Your task to perform on an android device: Empty the shopping cart on amazon.com. Add macbook pro to the cart on amazon.com, then select checkout. Image 0: 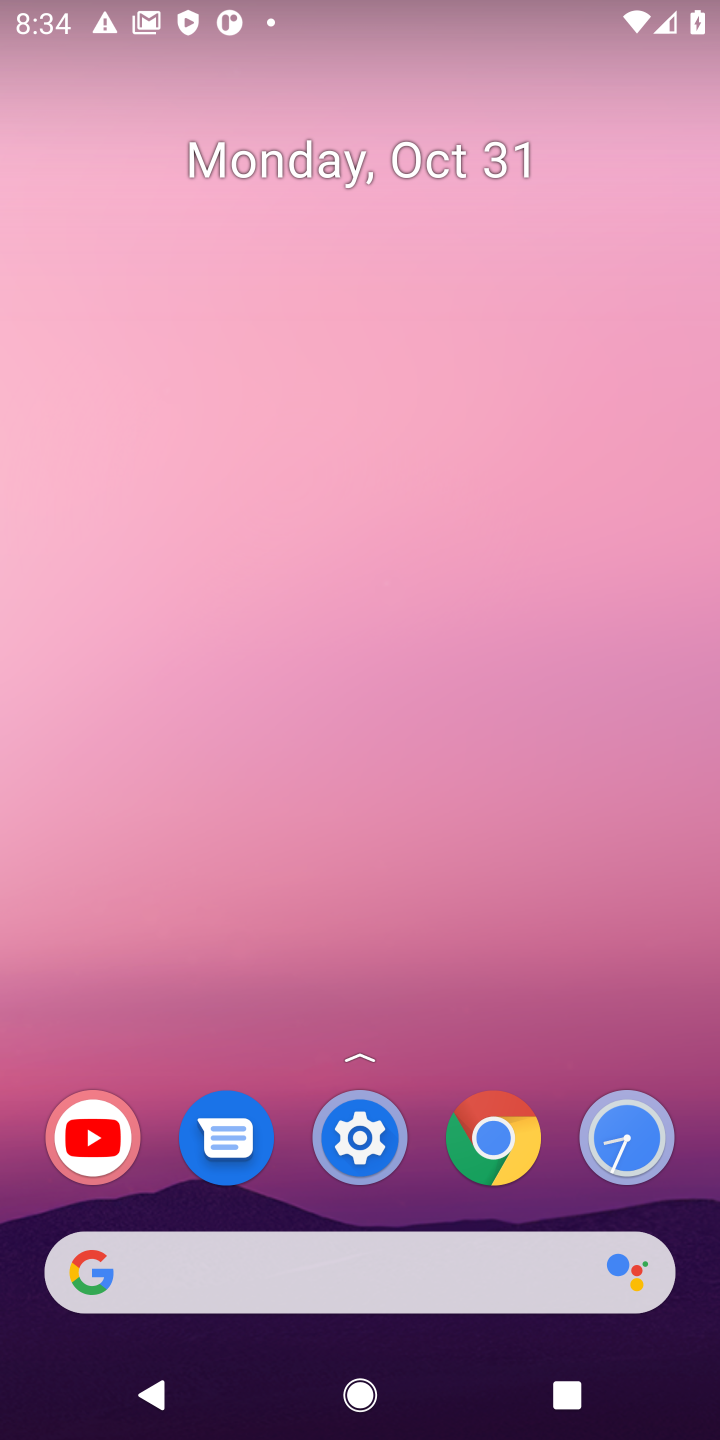
Step 0: click (413, 1302)
Your task to perform on an android device: Empty the shopping cart on amazon.com. Add macbook pro to the cart on amazon.com, then select checkout. Image 1: 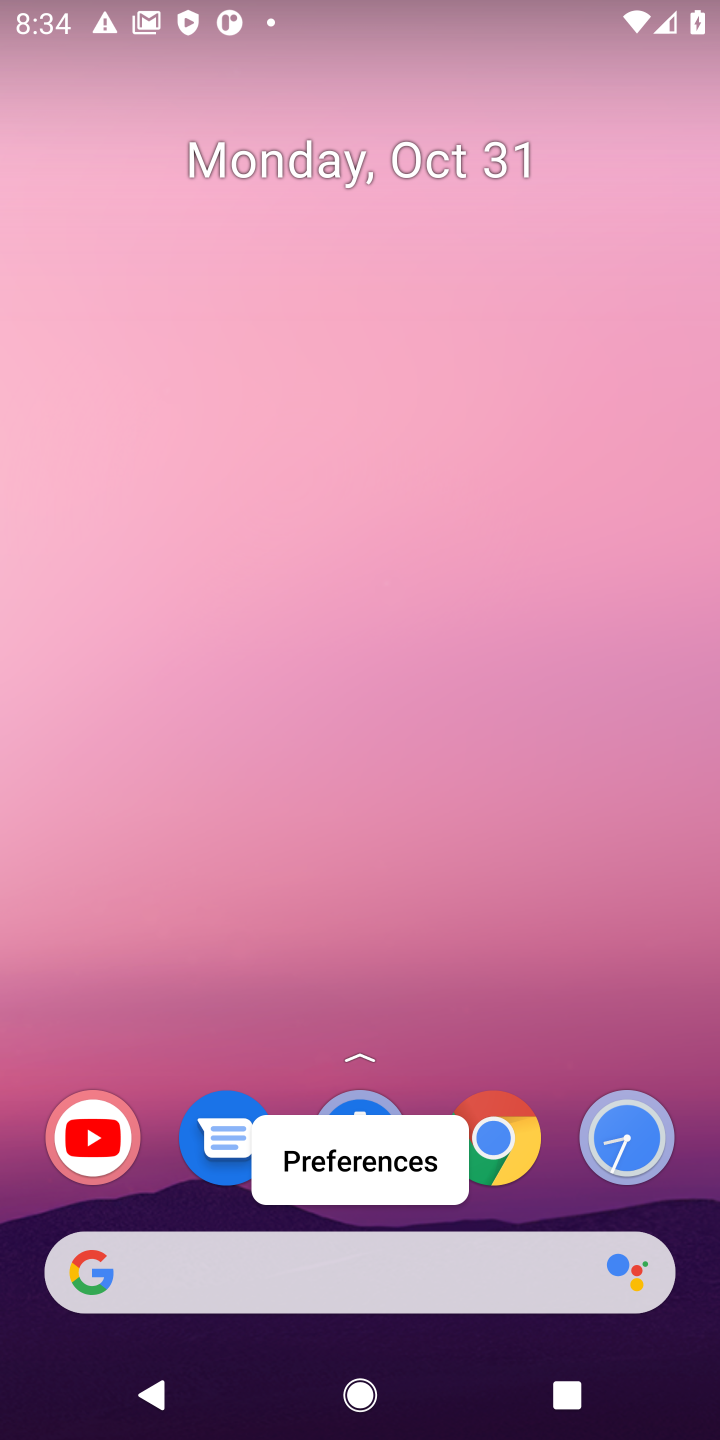
Step 1: click (323, 1262)
Your task to perform on an android device: Empty the shopping cart on amazon.com. Add macbook pro to the cart on amazon.com, then select checkout. Image 2: 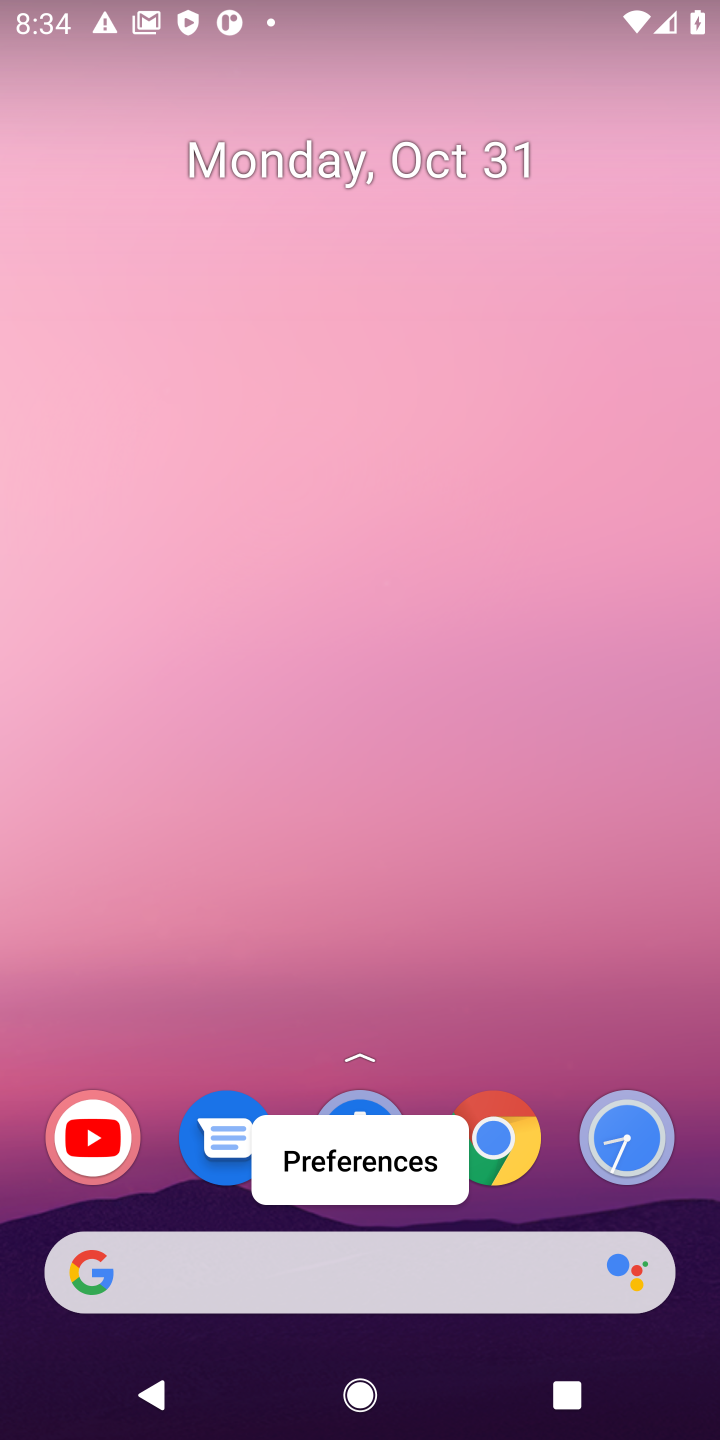
Step 2: click (330, 1284)
Your task to perform on an android device: Empty the shopping cart on amazon.com. Add macbook pro to the cart on amazon.com, then select checkout. Image 3: 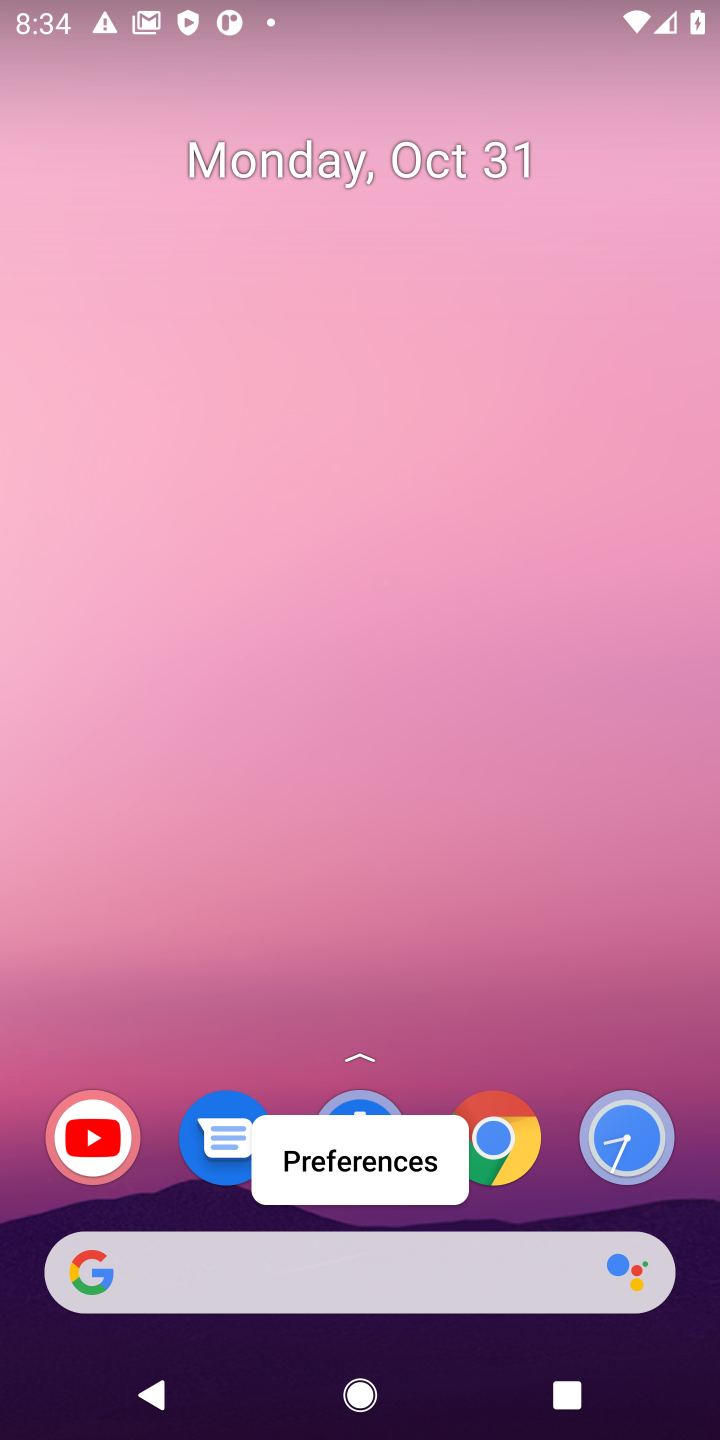
Step 3: click (330, 1284)
Your task to perform on an android device: Empty the shopping cart on amazon.com. Add macbook pro to the cart on amazon.com, then select checkout. Image 4: 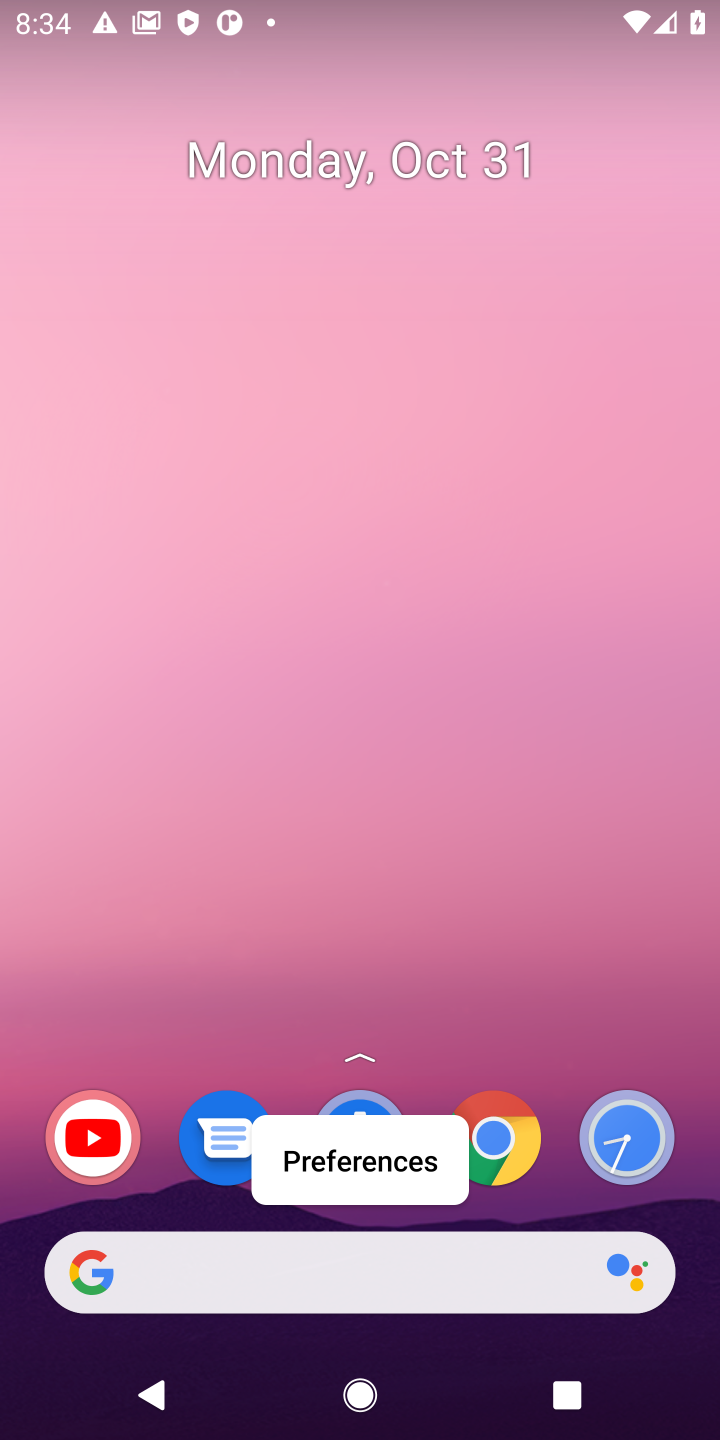
Step 4: click (330, 1284)
Your task to perform on an android device: Empty the shopping cart on amazon.com. Add macbook pro to the cart on amazon.com, then select checkout. Image 5: 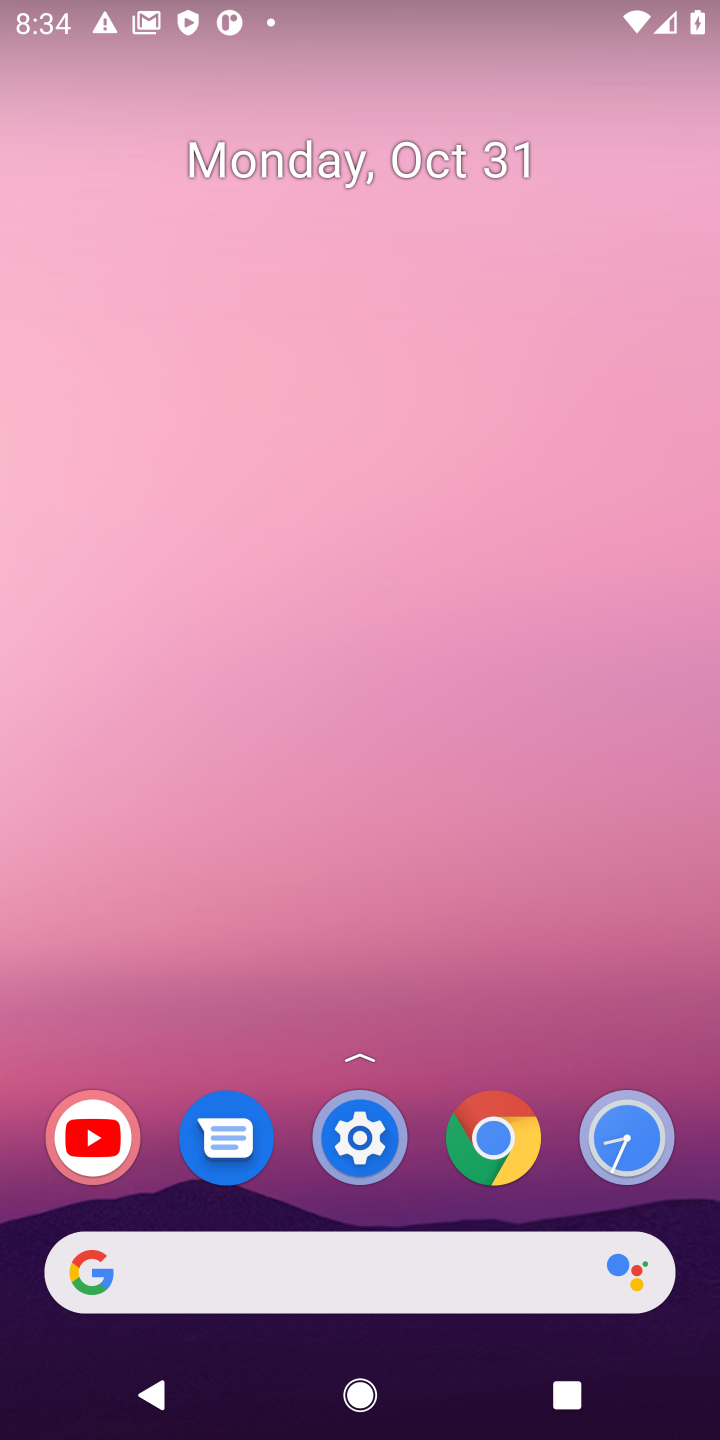
Step 5: click (279, 1263)
Your task to perform on an android device: Empty the shopping cart on amazon.com. Add macbook pro to the cart on amazon.com, then select checkout. Image 6: 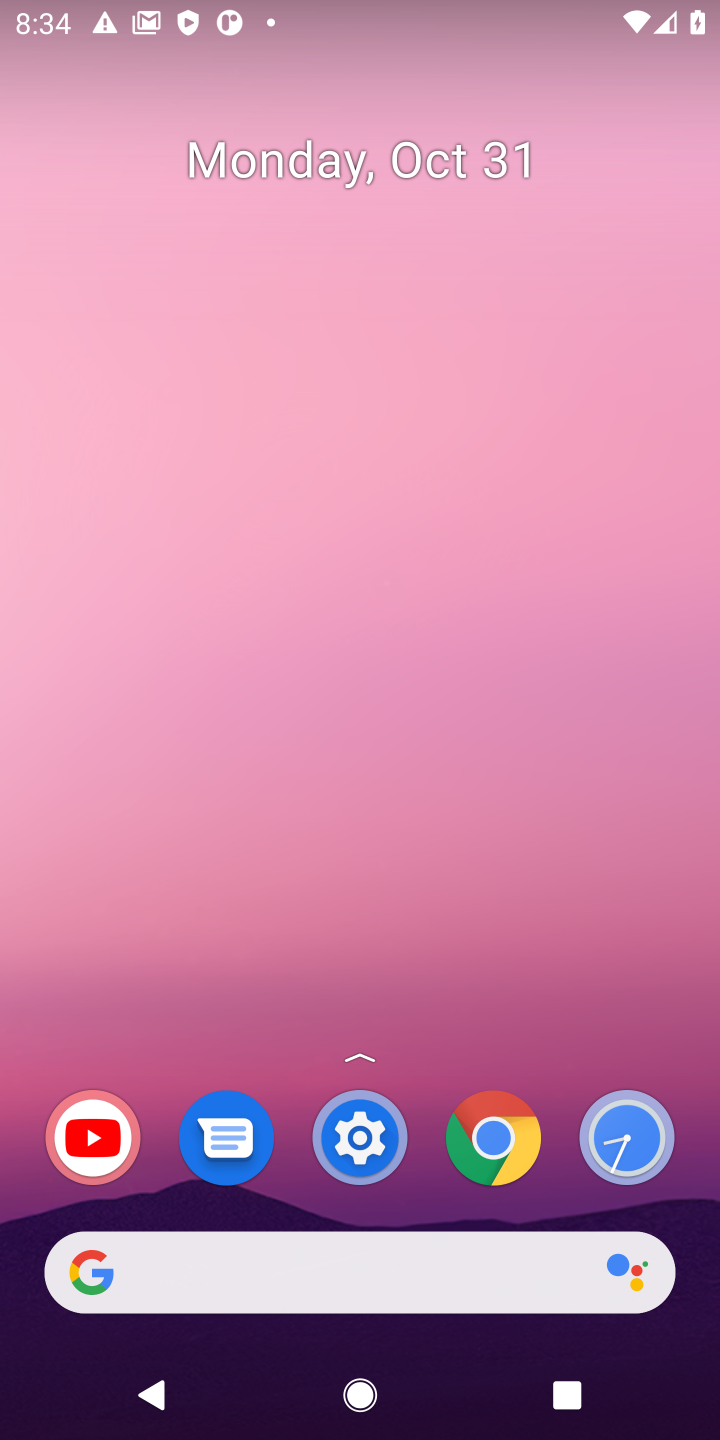
Step 6: click (279, 1267)
Your task to perform on an android device: Empty the shopping cart on amazon.com. Add macbook pro to the cart on amazon.com, then select checkout. Image 7: 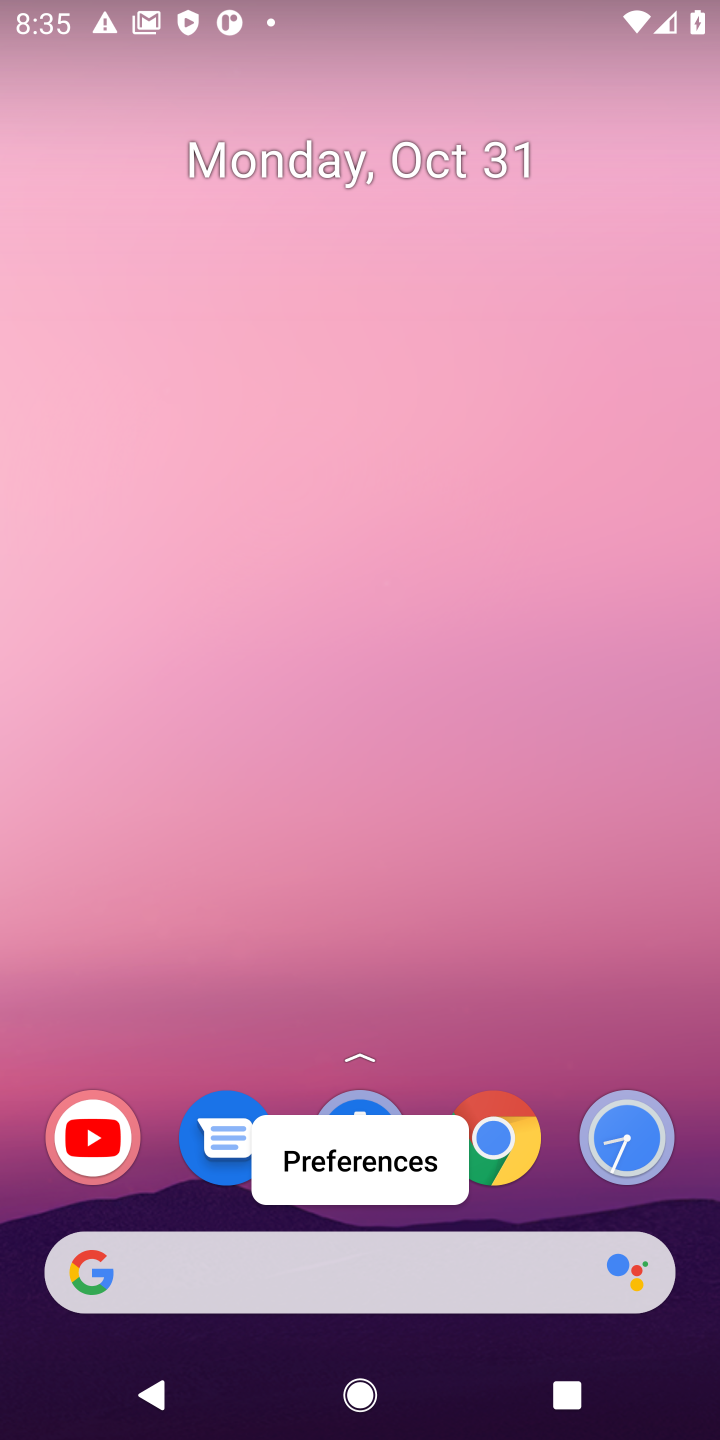
Step 7: click (275, 1263)
Your task to perform on an android device: Empty the shopping cart on amazon.com. Add macbook pro to the cart on amazon.com, then select checkout. Image 8: 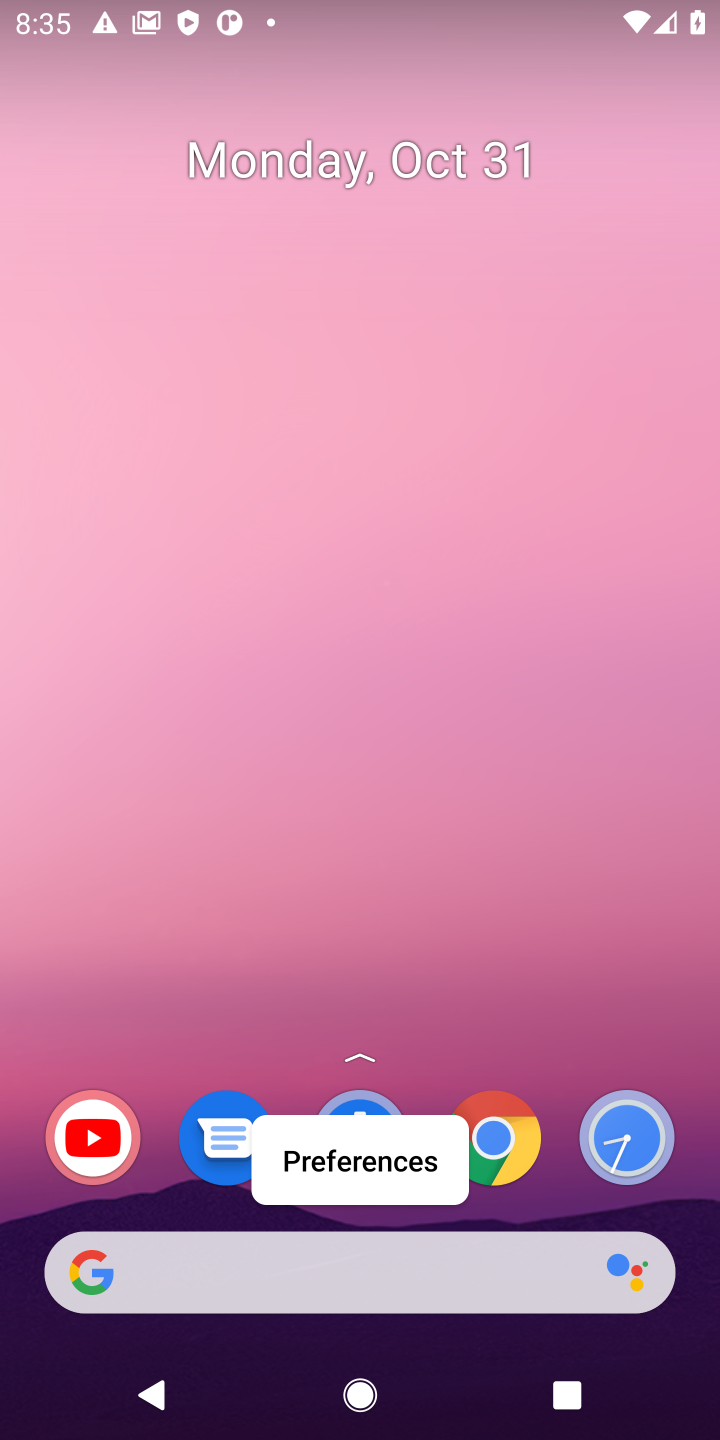
Step 8: click (265, 1268)
Your task to perform on an android device: Empty the shopping cart on amazon.com. Add macbook pro to the cart on amazon.com, then select checkout. Image 9: 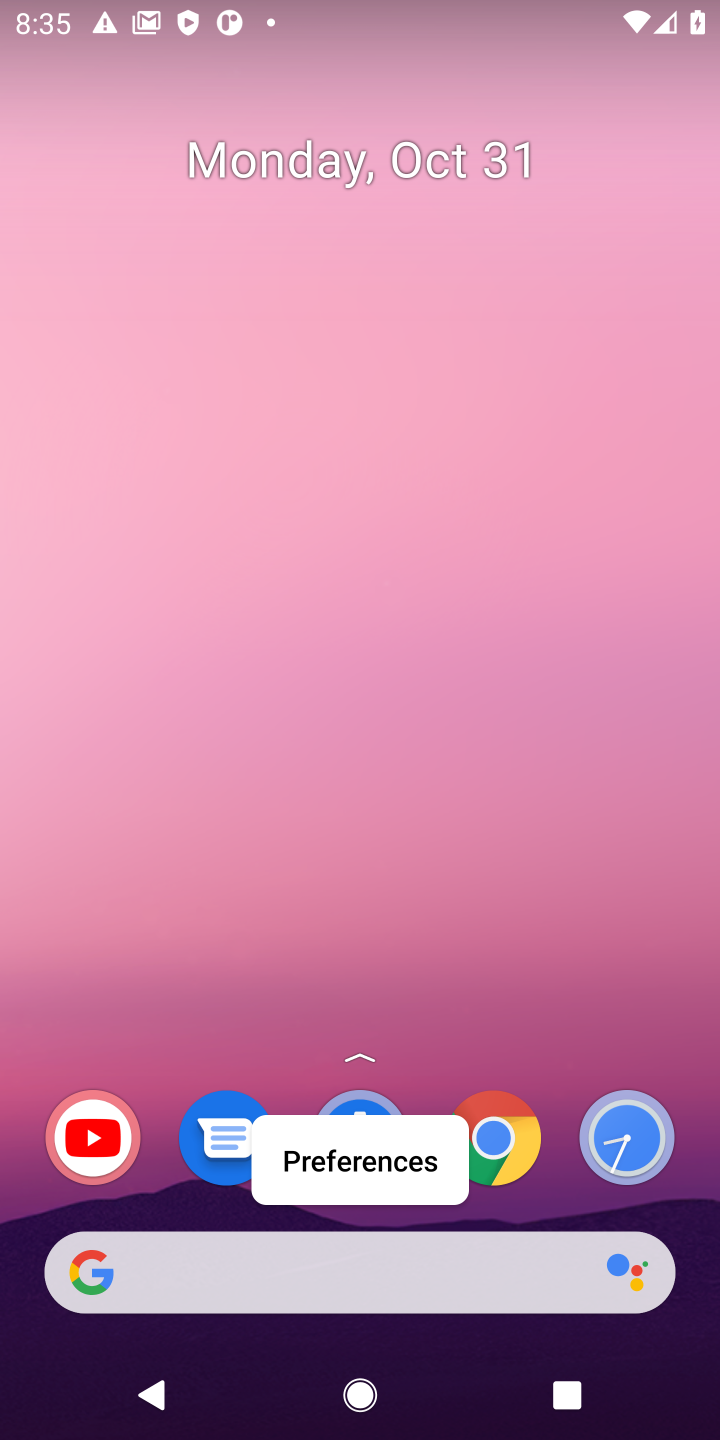
Step 9: click (265, 1268)
Your task to perform on an android device: Empty the shopping cart on amazon.com. Add macbook pro to the cart on amazon.com, then select checkout. Image 10: 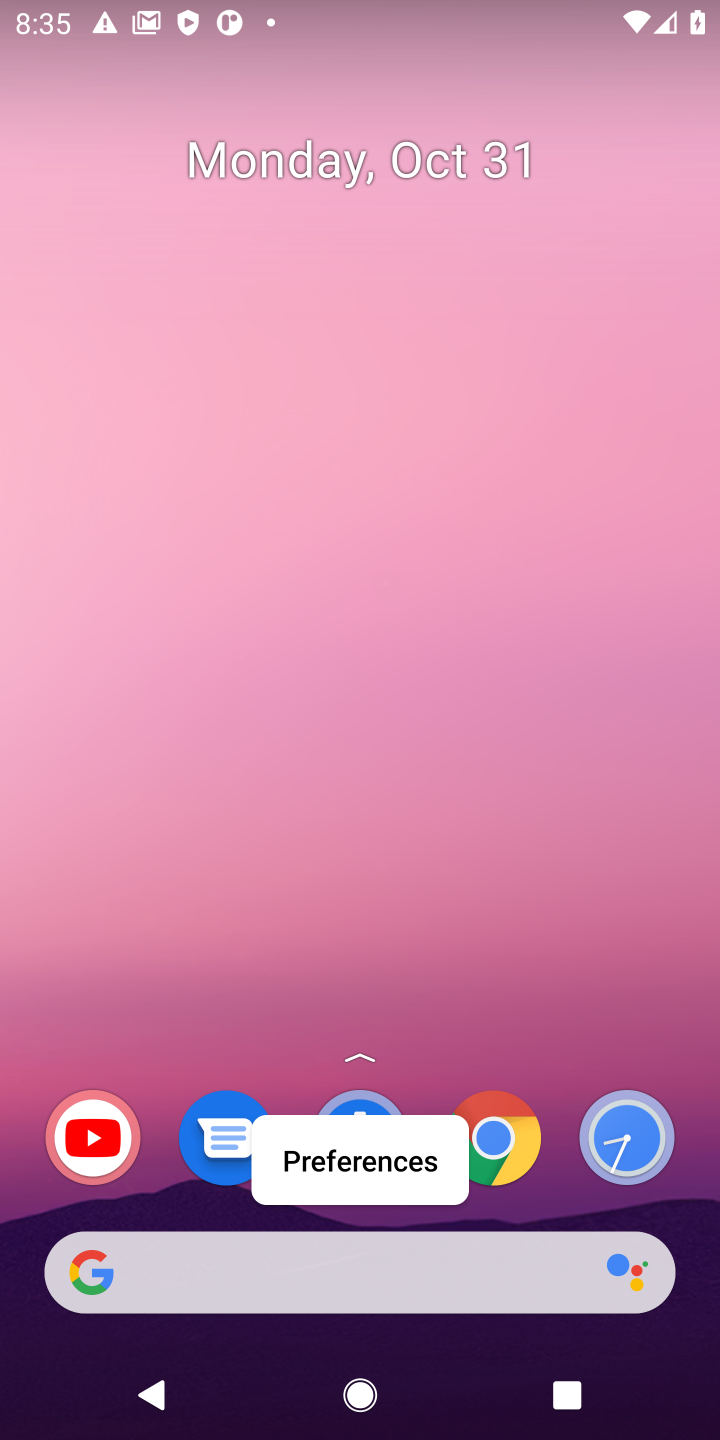
Step 10: drag from (265, 1268) to (376, 1270)
Your task to perform on an android device: Empty the shopping cart on amazon.com. Add macbook pro to the cart on amazon.com, then select checkout. Image 11: 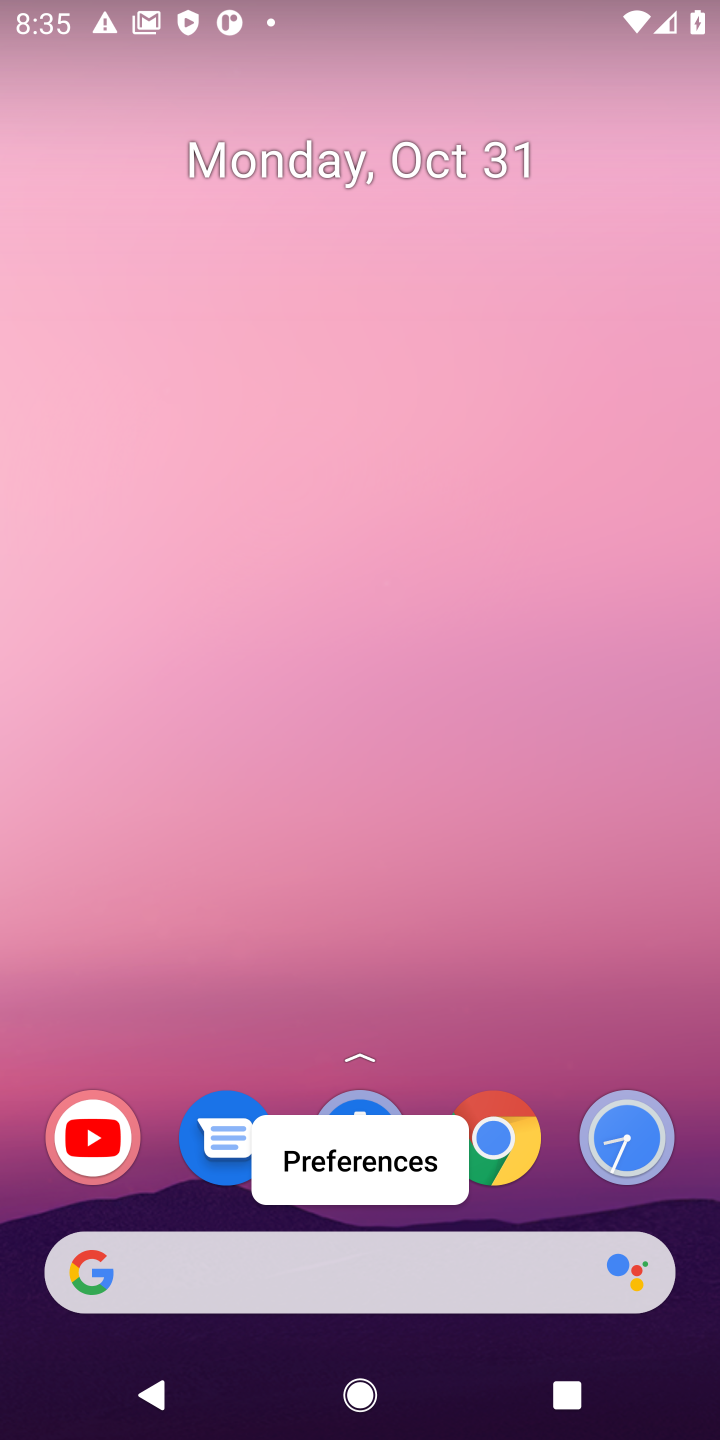
Step 11: click (176, 1268)
Your task to perform on an android device: Empty the shopping cart on amazon.com. Add macbook pro to the cart on amazon.com, then select checkout. Image 12: 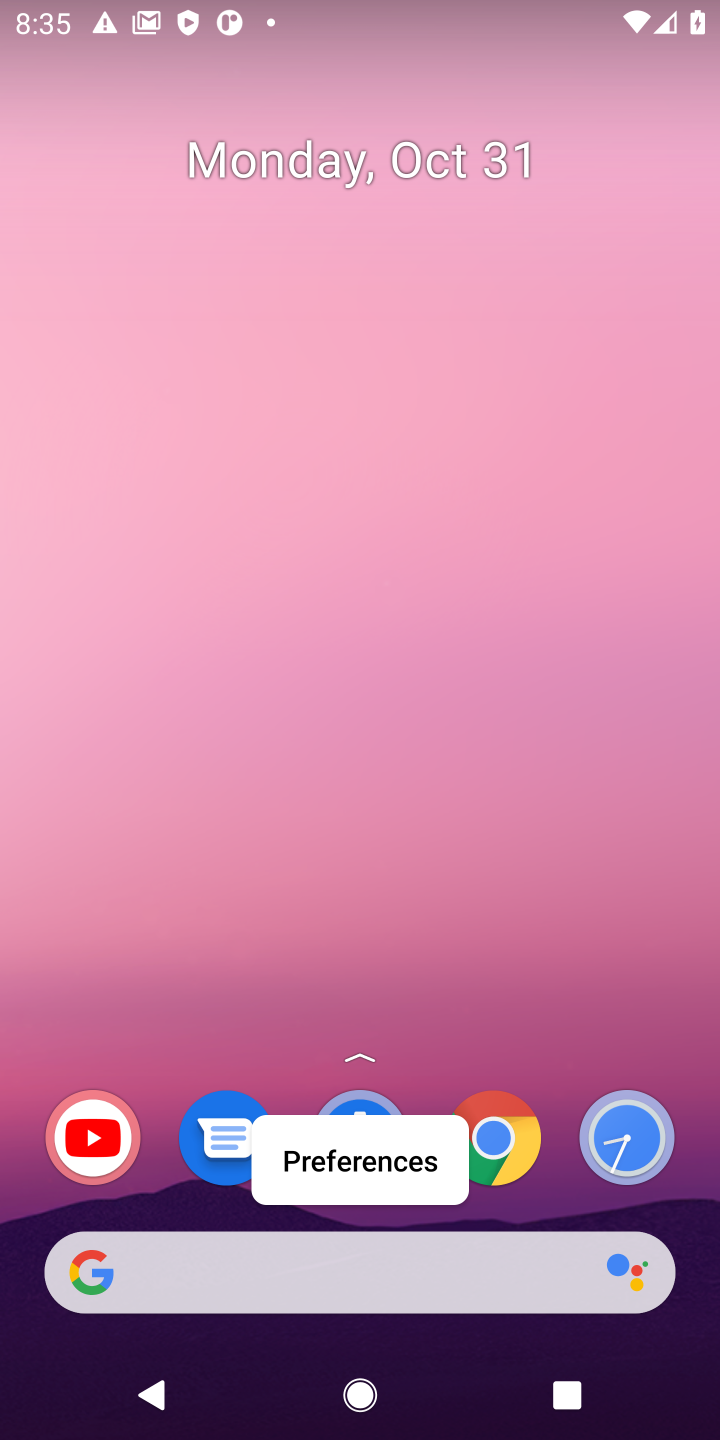
Step 12: click (431, 1285)
Your task to perform on an android device: Empty the shopping cart on amazon.com. Add macbook pro to the cart on amazon.com, then select checkout. Image 13: 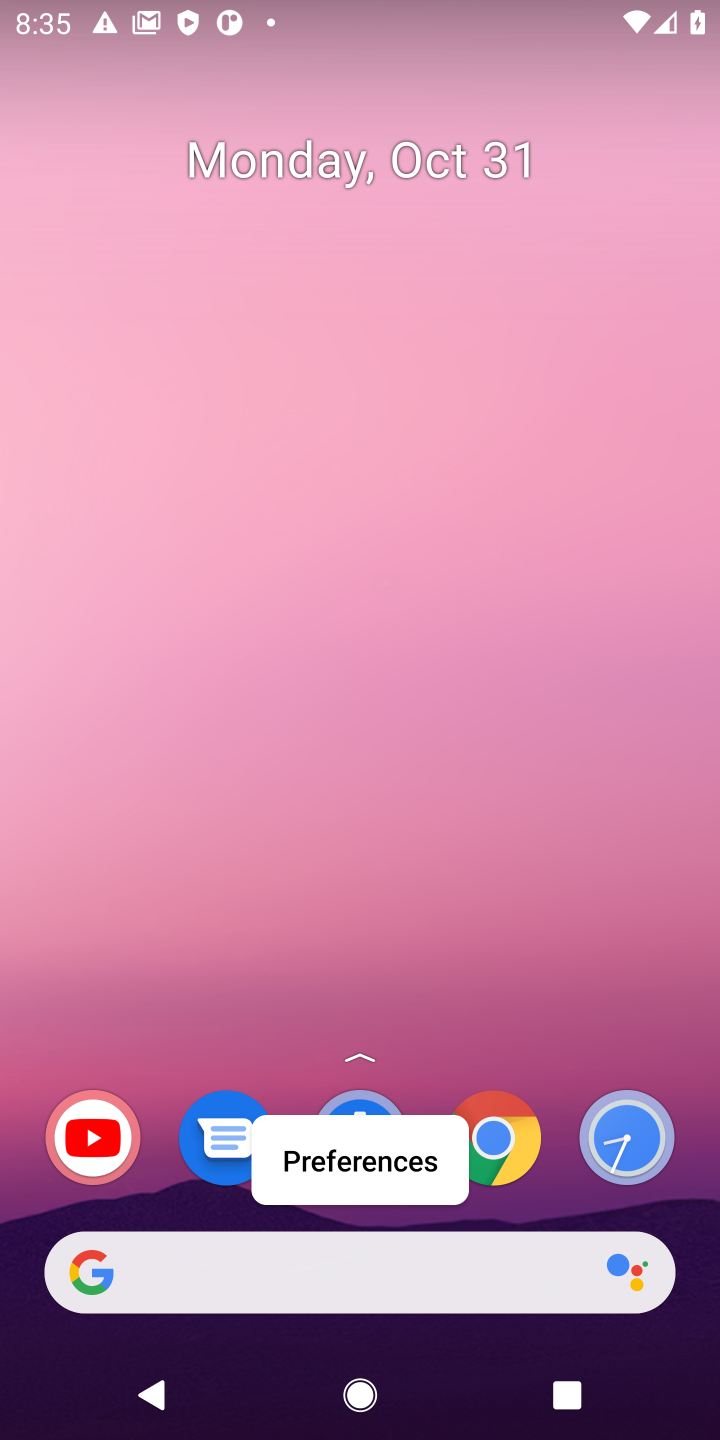
Step 13: click (499, 1121)
Your task to perform on an android device: Empty the shopping cart on amazon.com. Add macbook pro to the cart on amazon.com, then select checkout. Image 14: 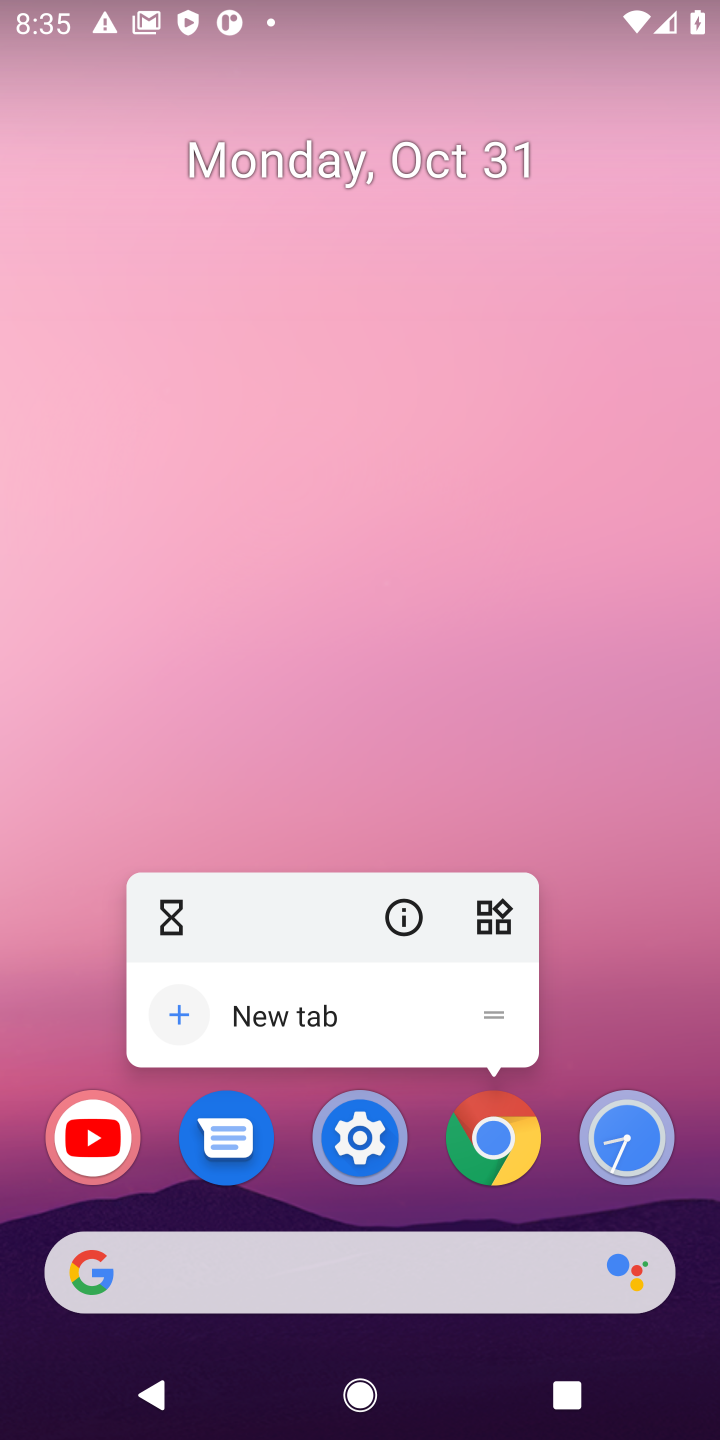
Step 14: click (262, 1021)
Your task to perform on an android device: Empty the shopping cart on amazon.com. Add macbook pro to the cart on amazon.com, then select checkout. Image 15: 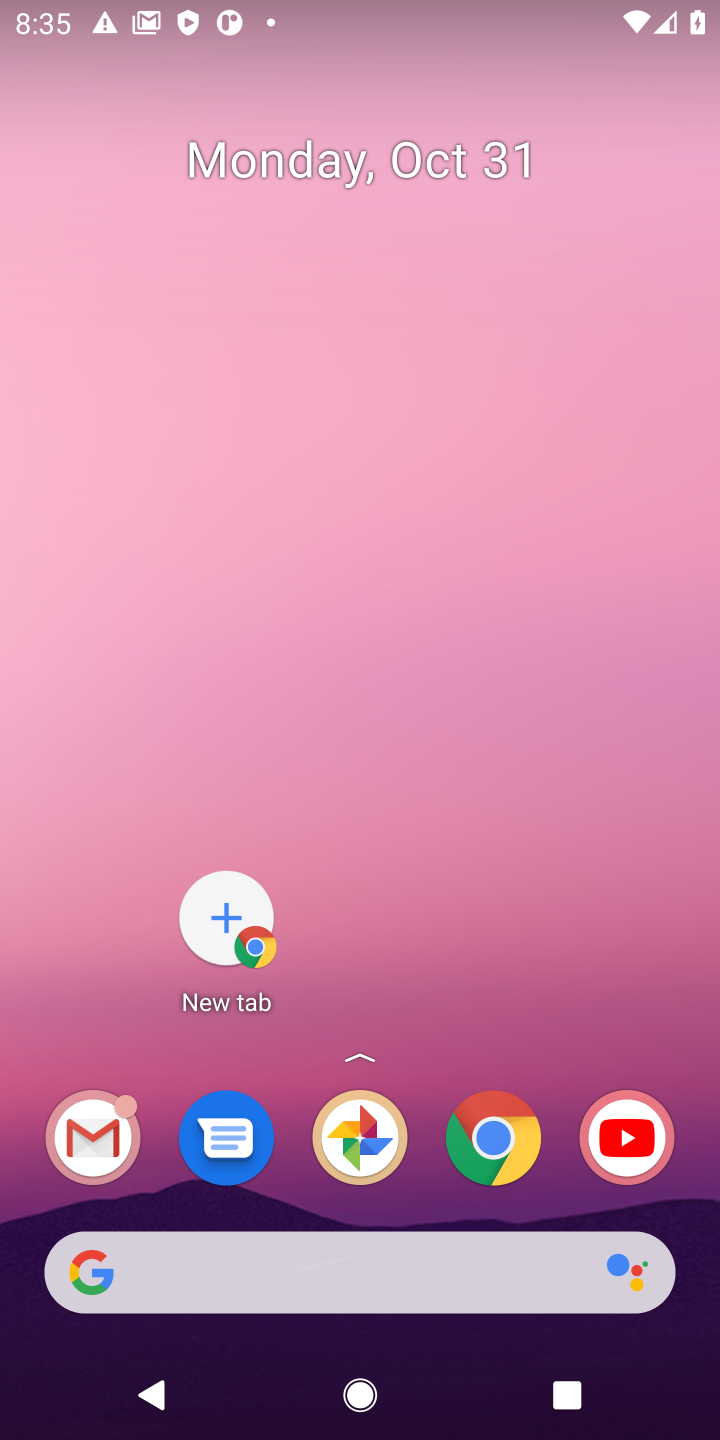
Step 15: click (245, 948)
Your task to perform on an android device: Empty the shopping cart on amazon.com. Add macbook pro to the cart on amazon.com, then select checkout. Image 16: 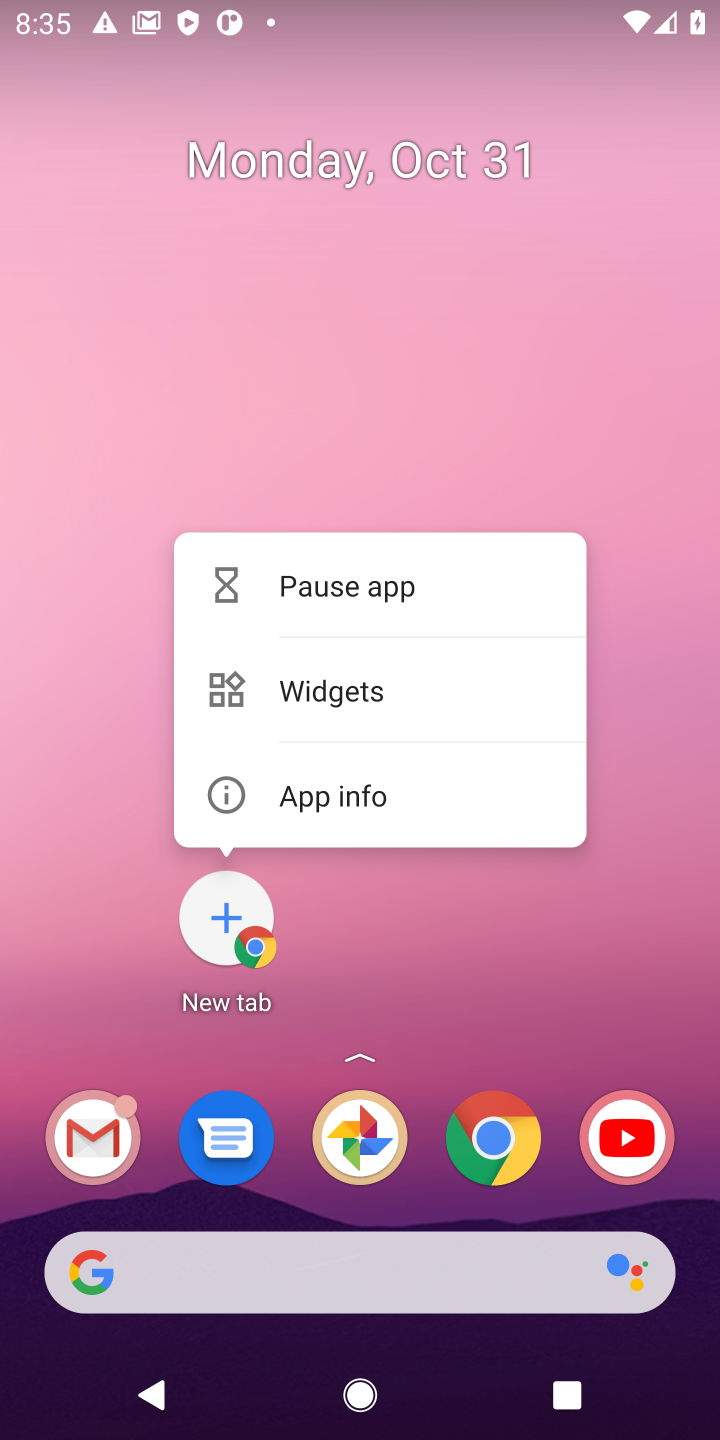
Step 16: click (245, 948)
Your task to perform on an android device: Empty the shopping cart on amazon.com. Add macbook pro to the cart on amazon.com, then select checkout. Image 17: 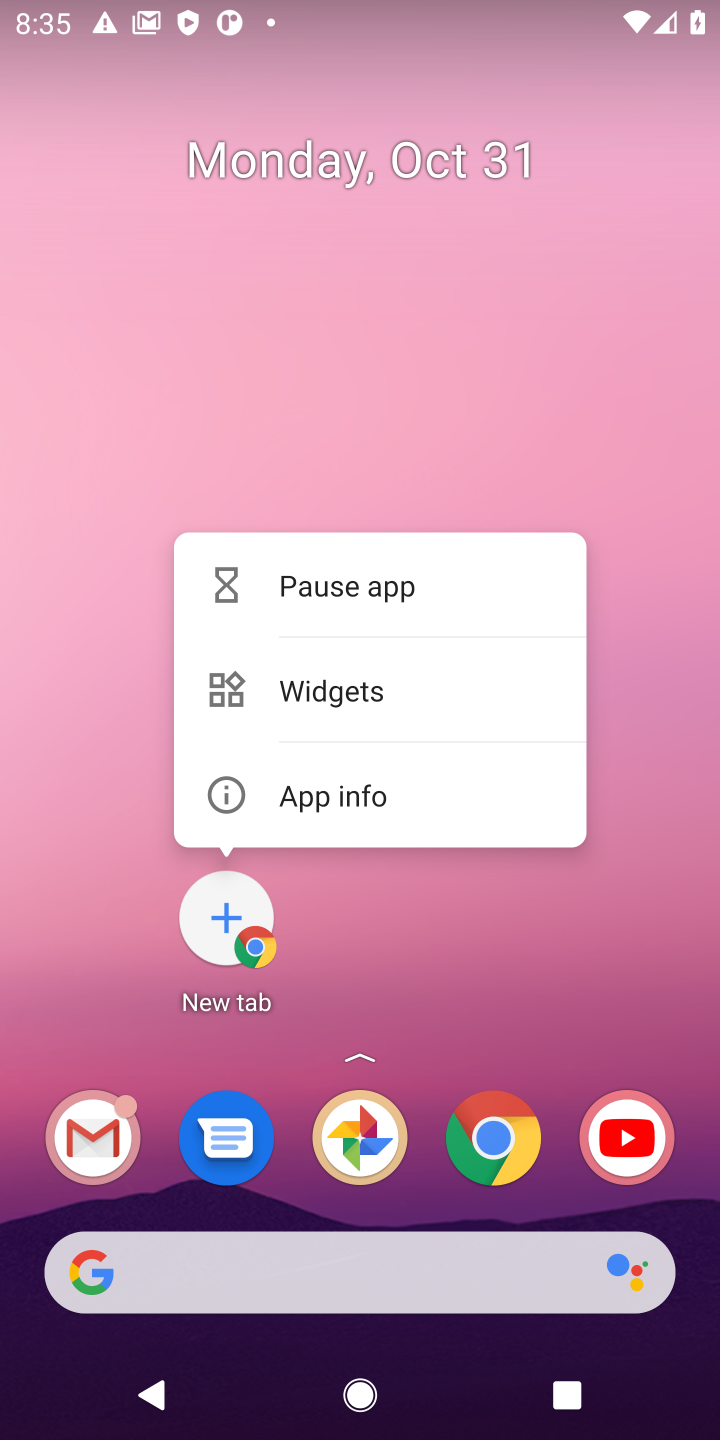
Step 17: click (247, 948)
Your task to perform on an android device: Empty the shopping cart on amazon.com. Add macbook pro to the cart on amazon.com, then select checkout. Image 18: 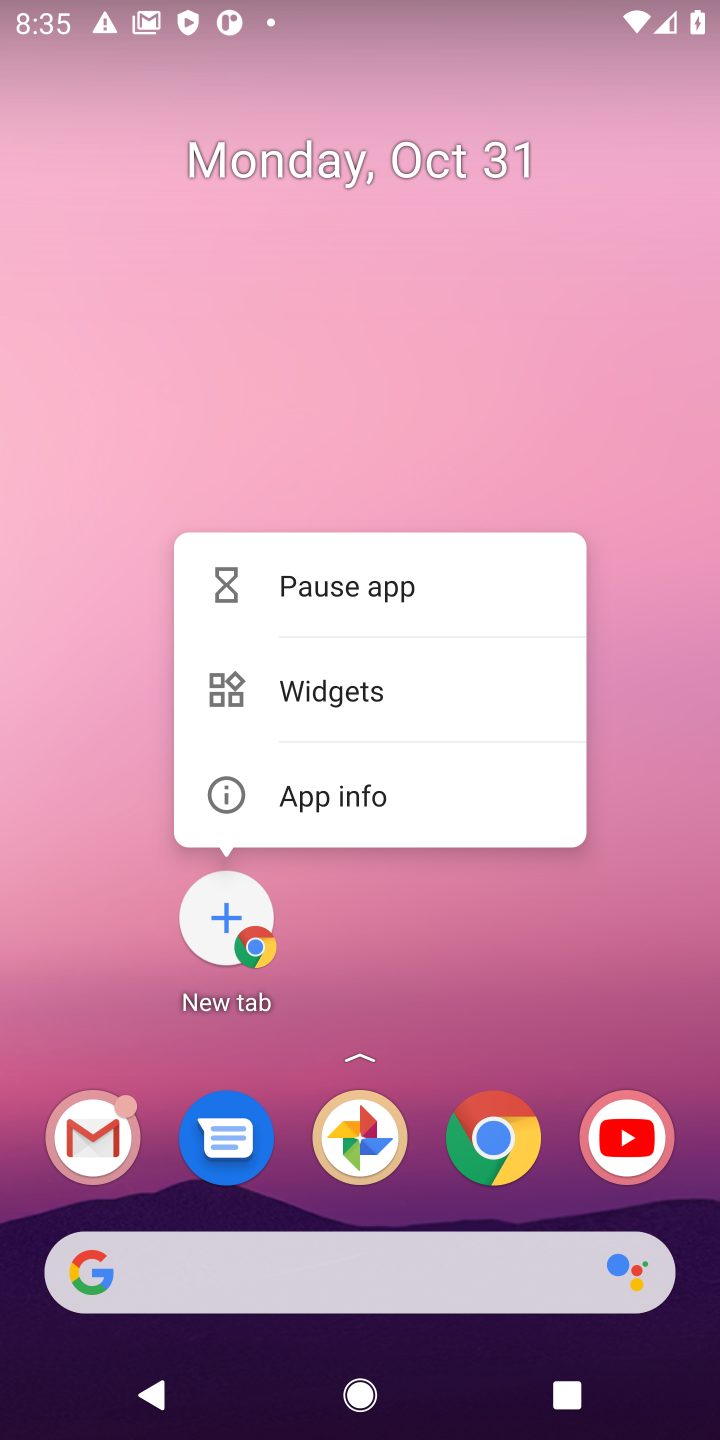
Step 18: click (290, 1229)
Your task to perform on an android device: Empty the shopping cart on amazon.com. Add macbook pro to the cart on amazon.com, then select checkout. Image 19: 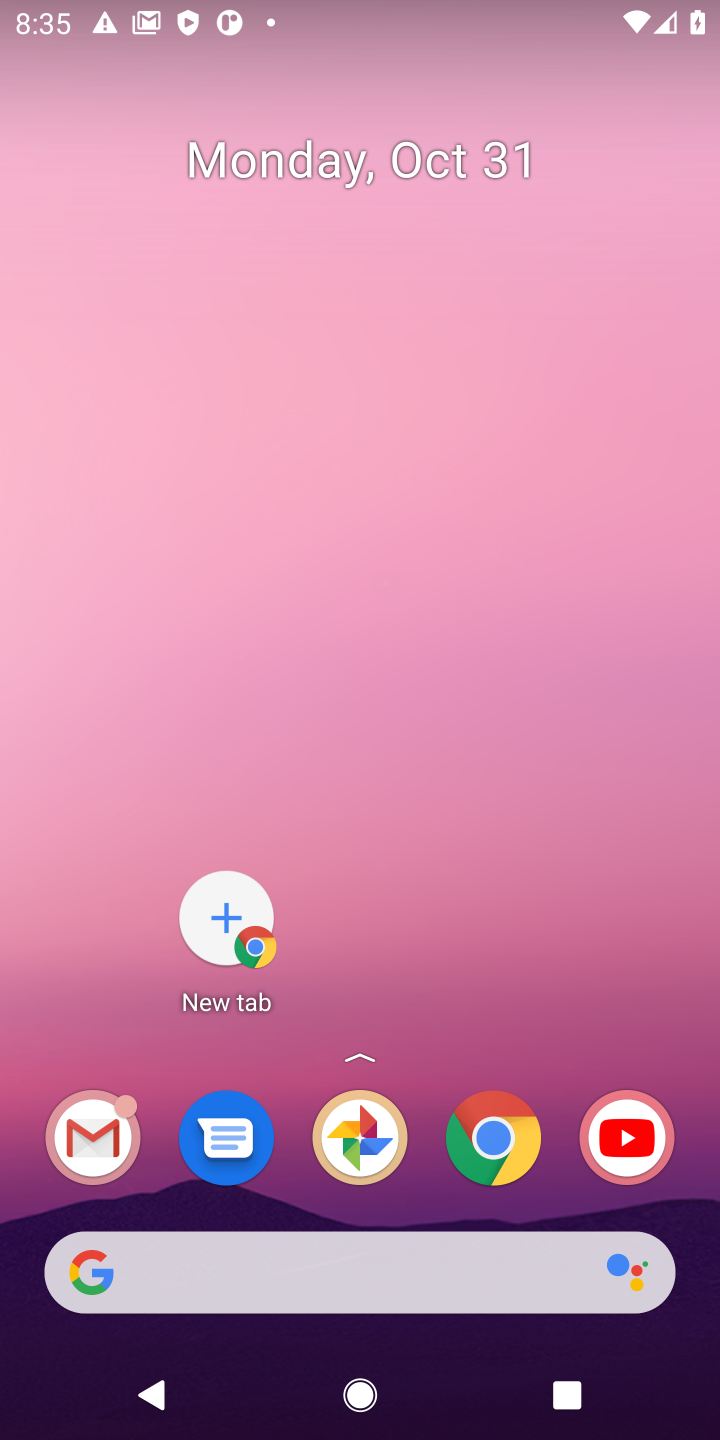
Step 19: click (270, 1268)
Your task to perform on an android device: Empty the shopping cart on amazon.com. Add macbook pro to the cart on amazon.com, then select checkout. Image 20: 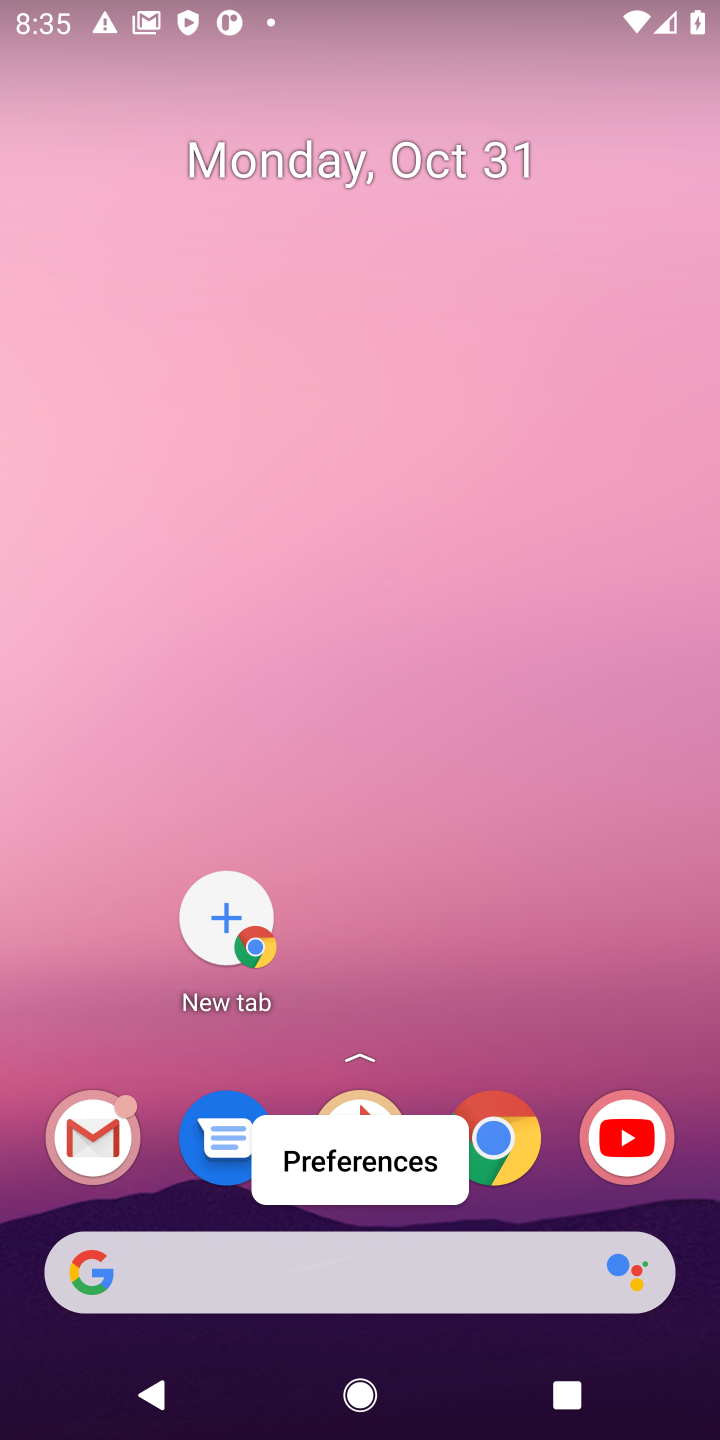
Step 20: click (270, 1270)
Your task to perform on an android device: Empty the shopping cart on amazon.com. Add macbook pro to the cart on amazon.com, then select checkout. Image 21: 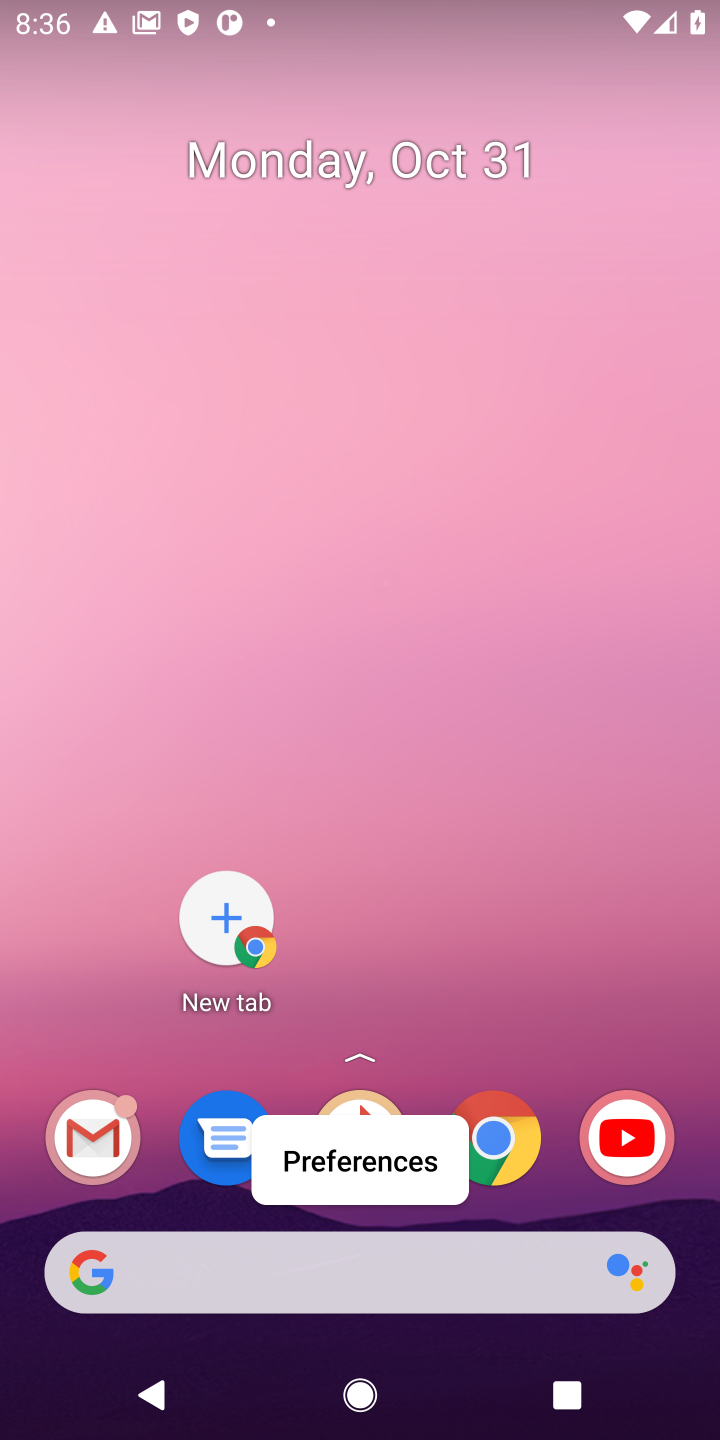
Step 21: click (247, 1290)
Your task to perform on an android device: Empty the shopping cart on amazon.com. Add macbook pro to the cart on amazon.com, then select checkout. Image 22: 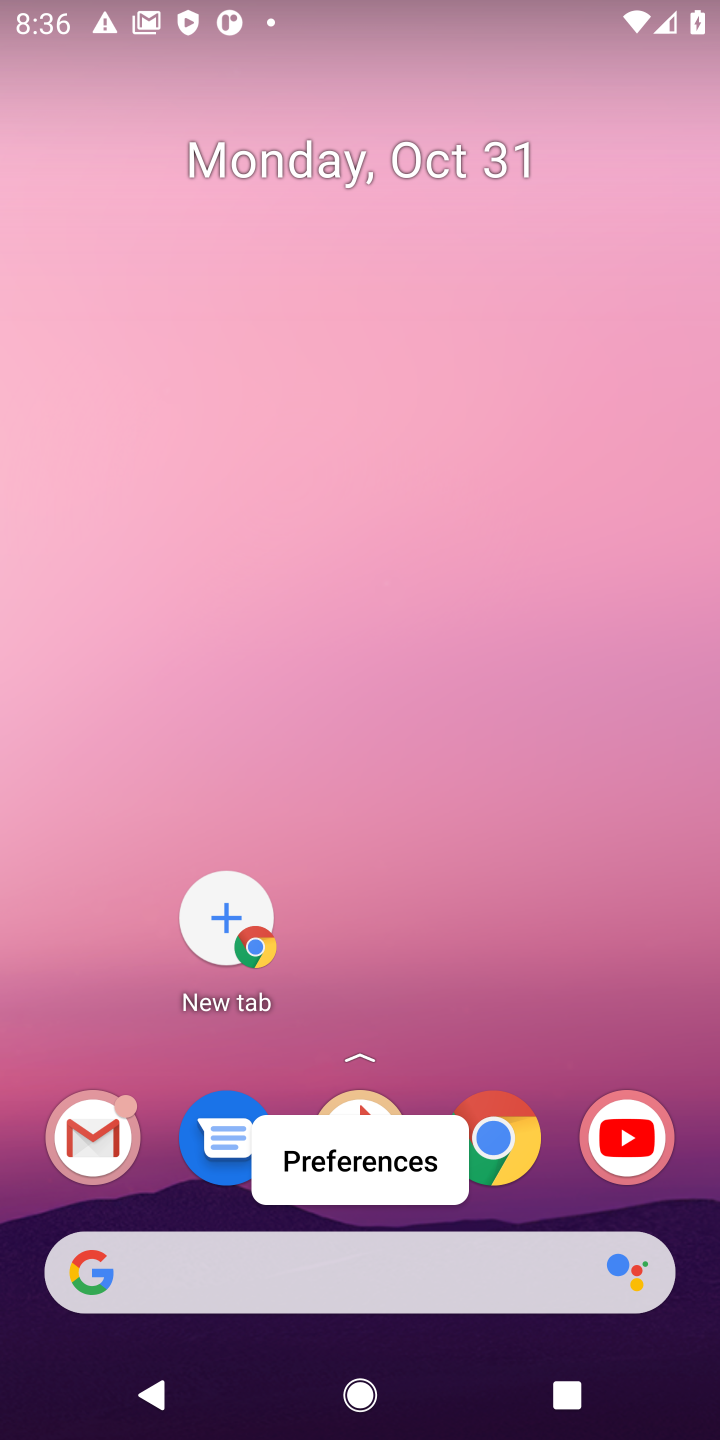
Step 22: click (243, 1286)
Your task to perform on an android device: Empty the shopping cart on amazon.com. Add macbook pro to the cart on amazon.com, then select checkout. Image 23: 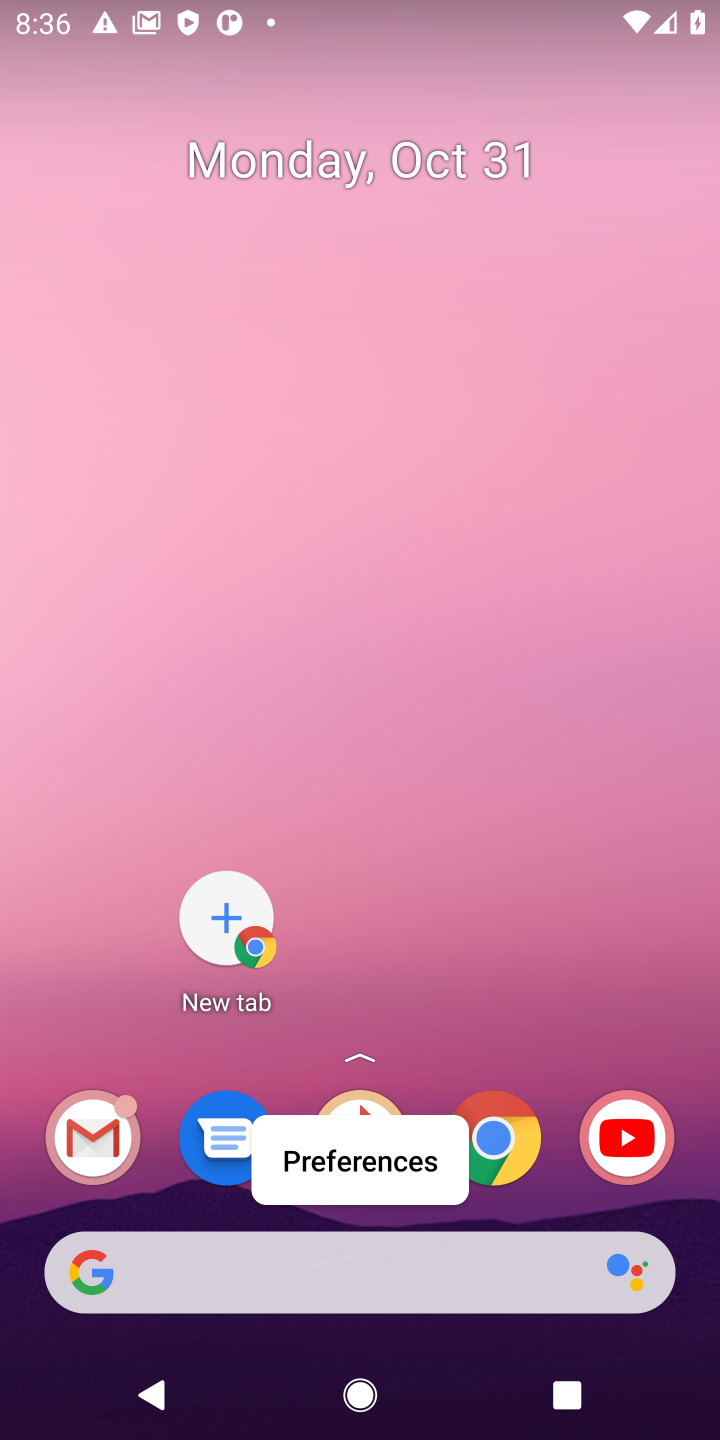
Step 23: task complete